Your task to perform on an android device: Open calendar and show me the third week of next month Image 0: 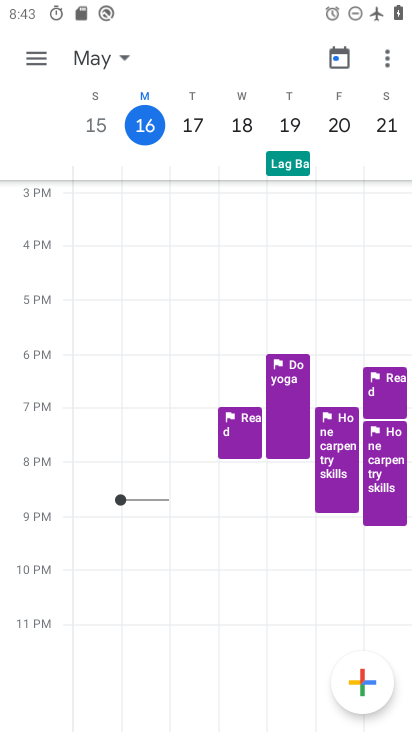
Step 0: press home button
Your task to perform on an android device: Open calendar and show me the third week of next month Image 1: 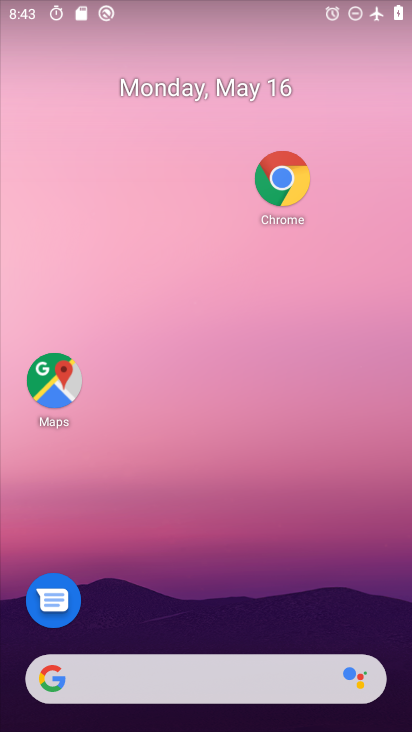
Step 1: drag from (174, 688) to (289, 224)
Your task to perform on an android device: Open calendar and show me the third week of next month Image 2: 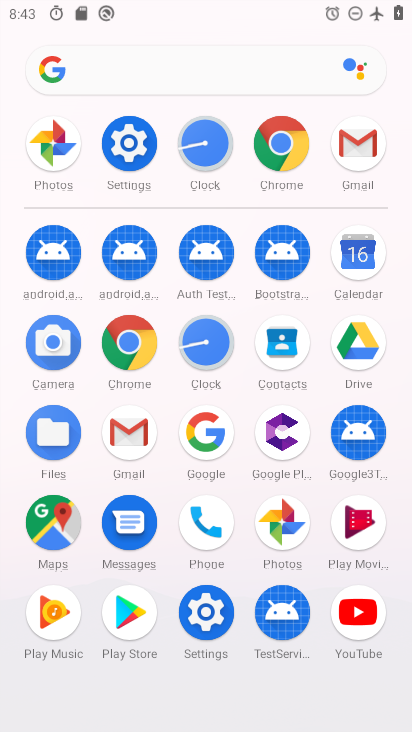
Step 2: click (362, 265)
Your task to perform on an android device: Open calendar and show me the third week of next month Image 3: 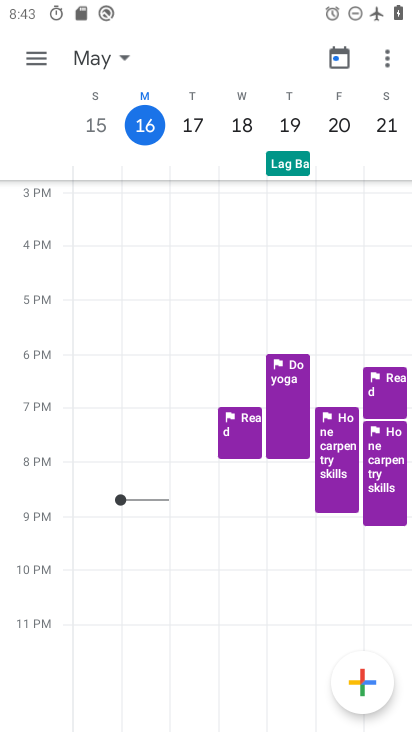
Step 3: click (77, 62)
Your task to perform on an android device: Open calendar and show me the third week of next month Image 4: 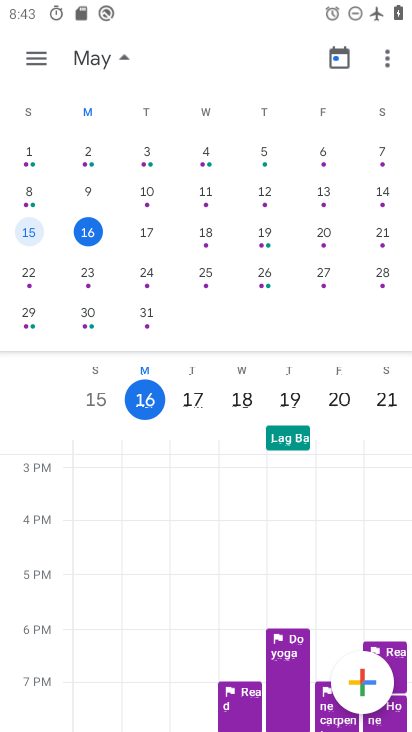
Step 4: drag from (348, 208) to (22, 214)
Your task to perform on an android device: Open calendar and show me the third week of next month Image 5: 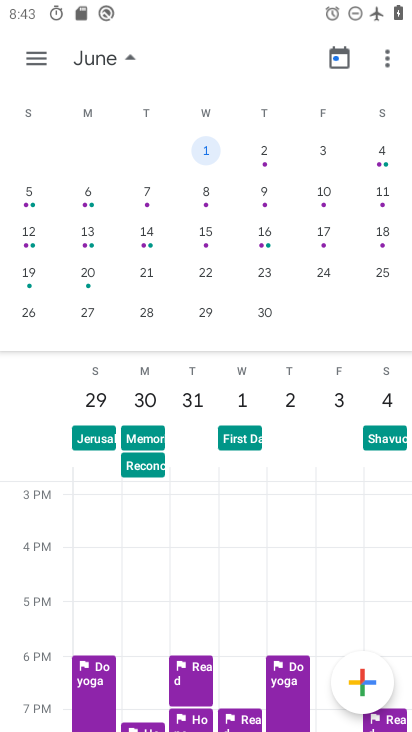
Step 5: click (33, 229)
Your task to perform on an android device: Open calendar and show me the third week of next month Image 6: 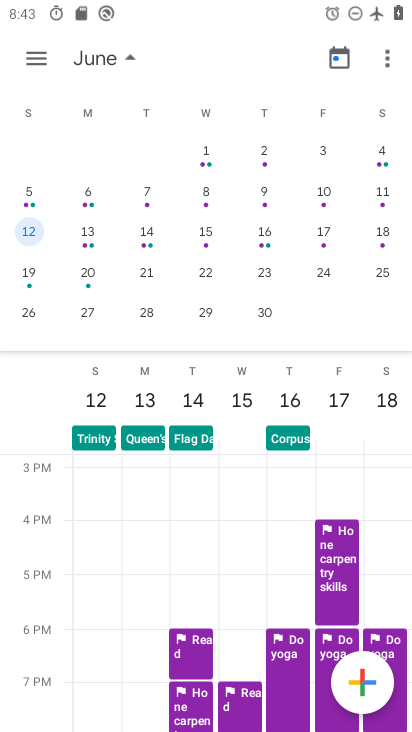
Step 6: click (34, 64)
Your task to perform on an android device: Open calendar and show me the third week of next month Image 7: 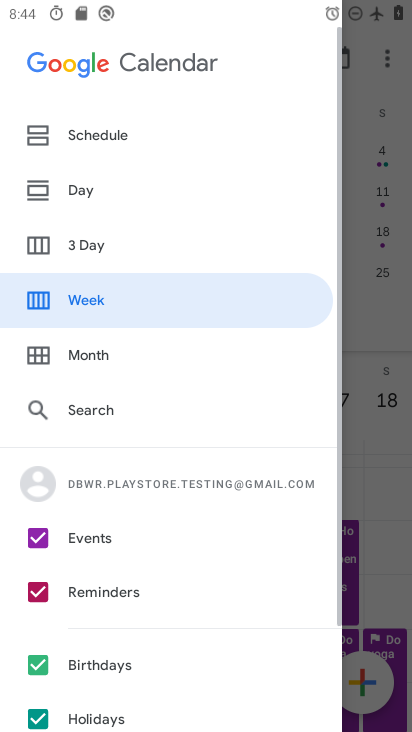
Step 7: click (84, 307)
Your task to perform on an android device: Open calendar and show me the third week of next month Image 8: 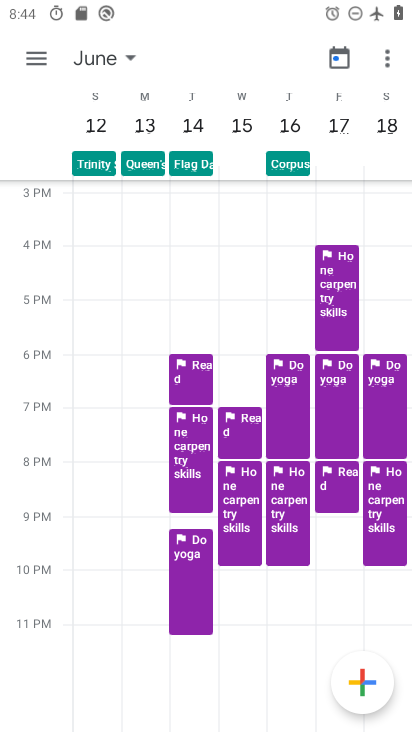
Step 8: task complete